Your task to perform on an android device: toggle location history Image 0: 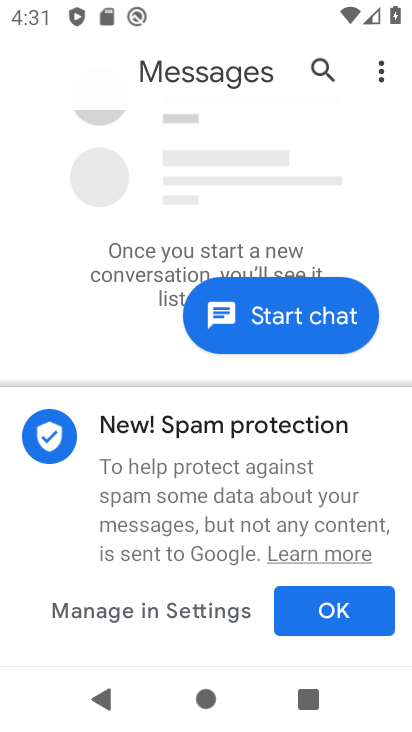
Step 0: press home button
Your task to perform on an android device: toggle location history Image 1: 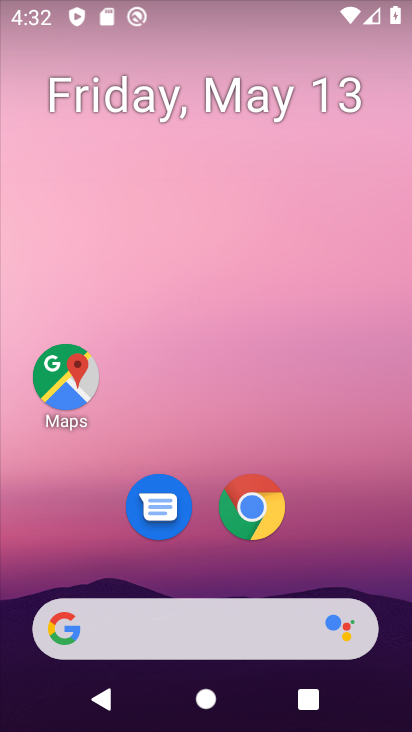
Step 1: drag from (328, 567) to (220, 89)
Your task to perform on an android device: toggle location history Image 2: 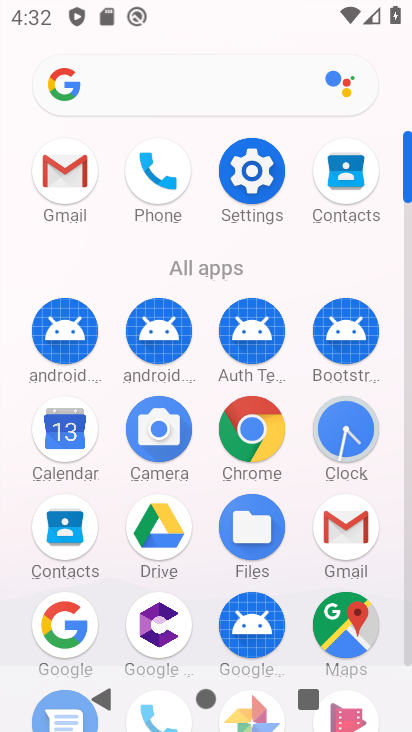
Step 2: click (245, 161)
Your task to perform on an android device: toggle location history Image 3: 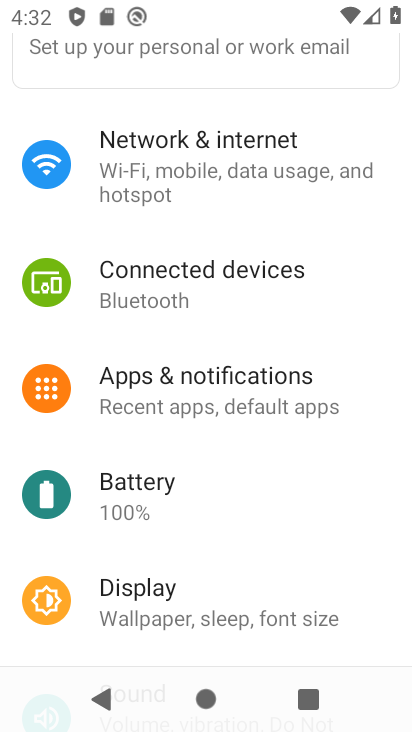
Step 3: drag from (236, 542) to (220, 122)
Your task to perform on an android device: toggle location history Image 4: 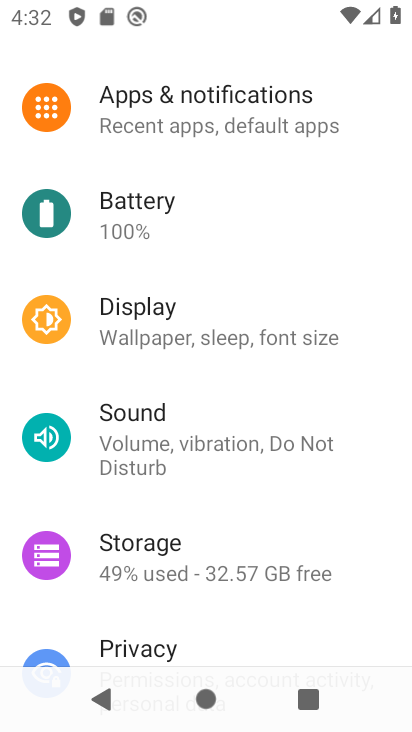
Step 4: drag from (266, 559) to (234, 220)
Your task to perform on an android device: toggle location history Image 5: 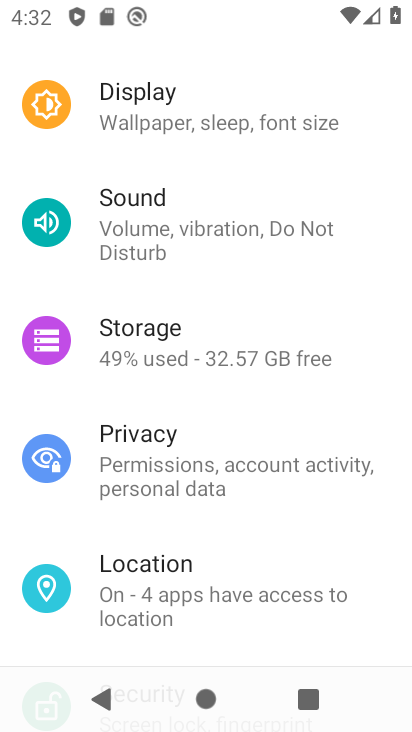
Step 5: drag from (235, 510) to (239, 322)
Your task to perform on an android device: toggle location history Image 6: 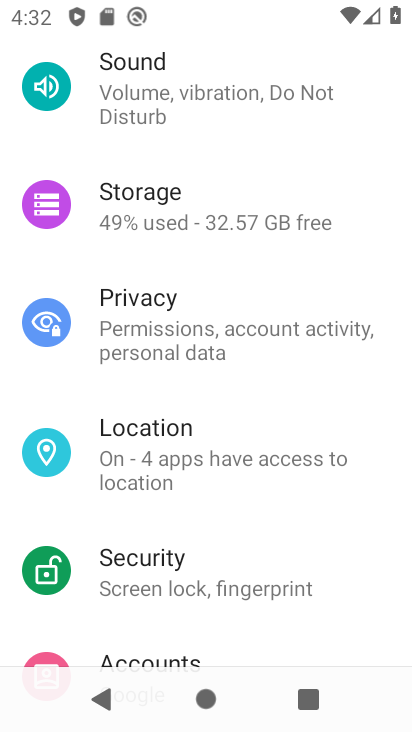
Step 6: click (232, 435)
Your task to perform on an android device: toggle location history Image 7: 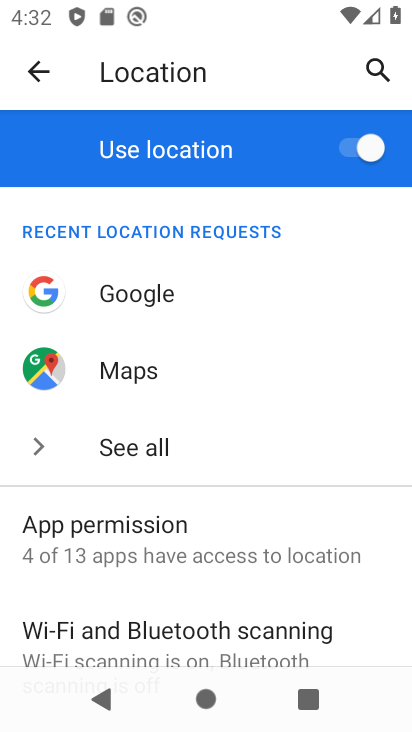
Step 7: drag from (266, 532) to (266, 135)
Your task to perform on an android device: toggle location history Image 8: 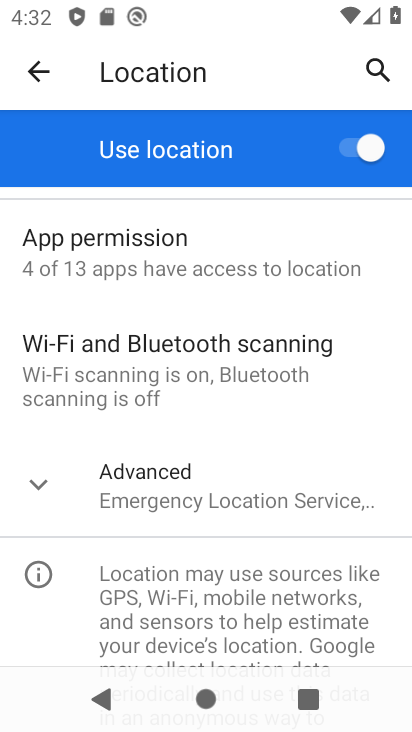
Step 8: click (234, 488)
Your task to perform on an android device: toggle location history Image 9: 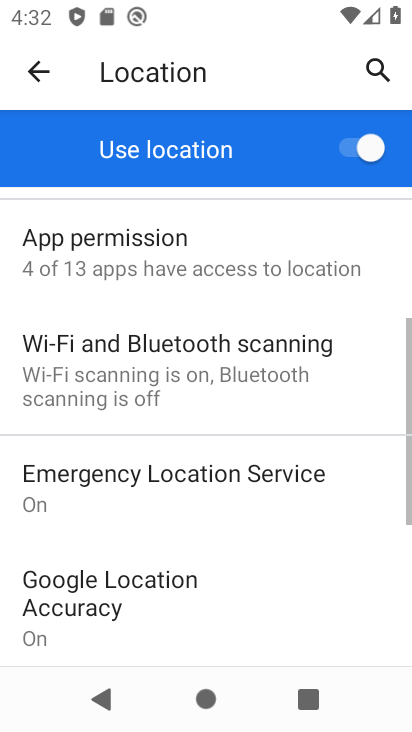
Step 9: drag from (270, 585) to (264, 282)
Your task to perform on an android device: toggle location history Image 10: 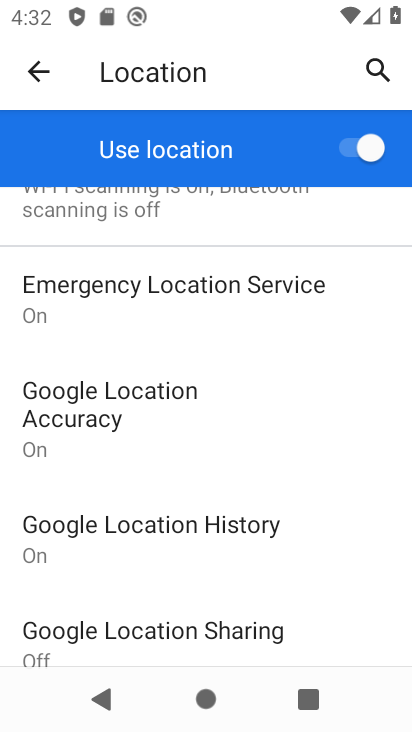
Step 10: click (227, 537)
Your task to perform on an android device: toggle location history Image 11: 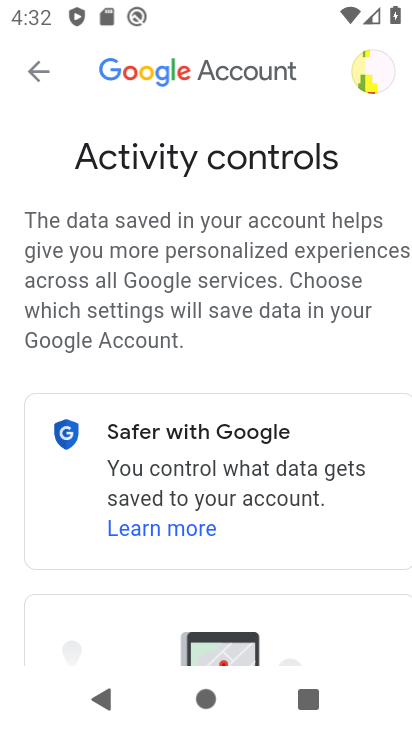
Step 11: drag from (260, 522) to (249, 108)
Your task to perform on an android device: toggle location history Image 12: 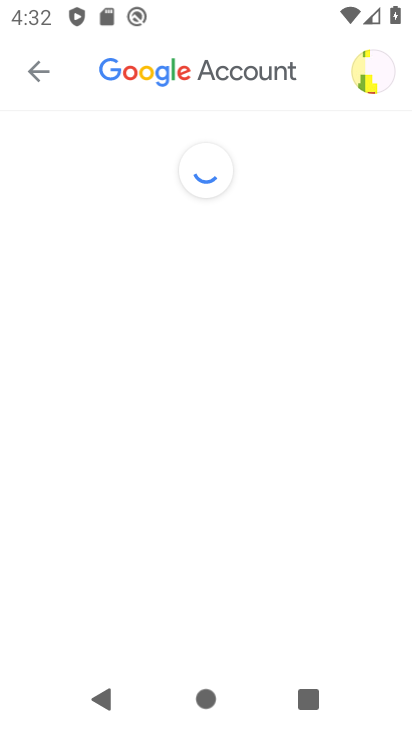
Step 12: drag from (213, 486) to (225, 138)
Your task to perform on an android device: toggle location history Image 13: 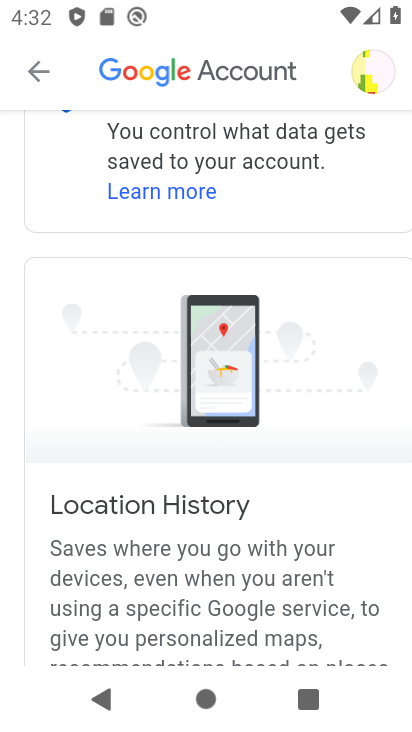
Step 13: drag from (159, 521) to (204, 173)
Your task to perform on an android device: toggle location history Image 14: 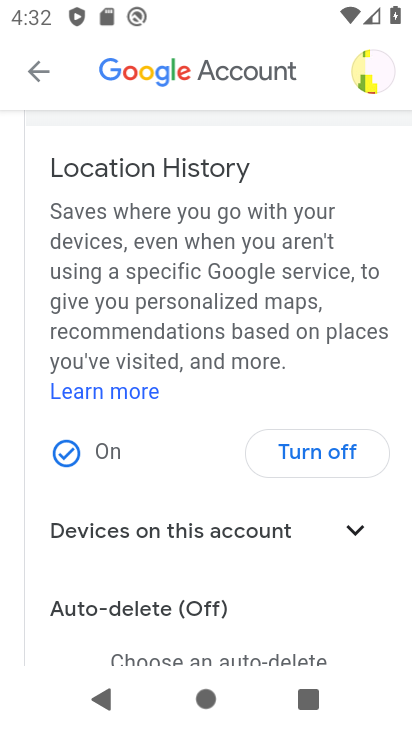
Step 14: click (325, 450)
Your task to perform on an android device: toggle location history Image 15: 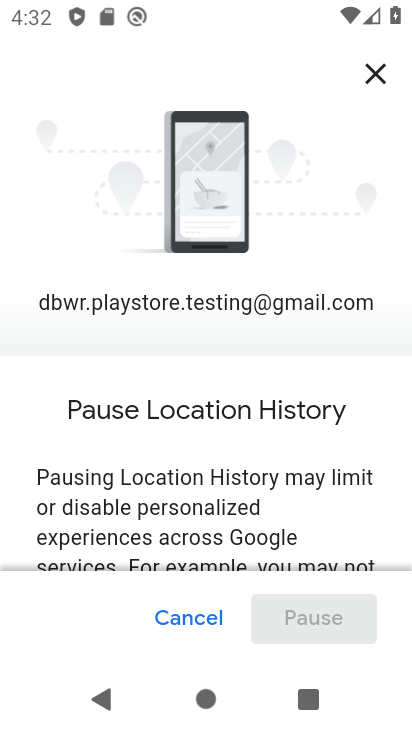
Step 15: drag from (292, 488) to (279, 64)
Your task to perform on an android device: toggle location history Image 16: 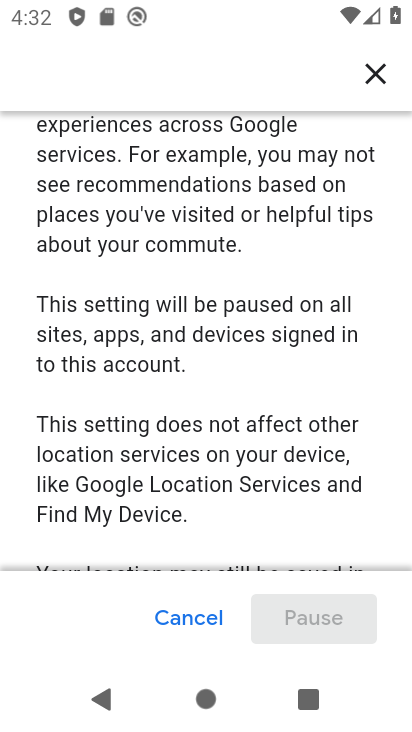
Step 16: drag from (224, 513) to (210, 73)
Your task to perform on an android device: toggle location history Image 17: 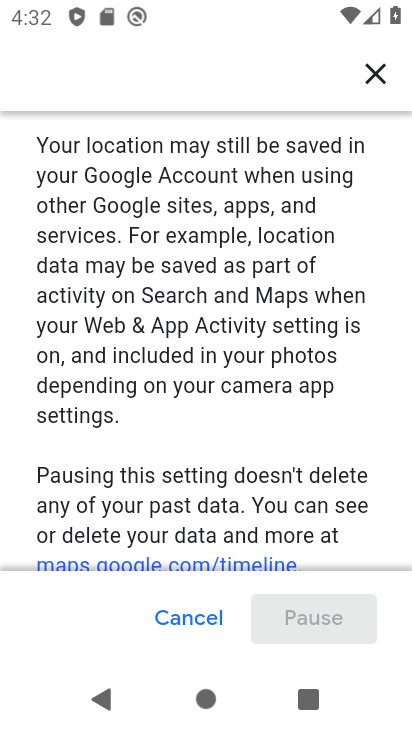
Step 17: drag from (276, 531) to (260, 139)
Your task to perform on an android device: toggle location history Image 18: 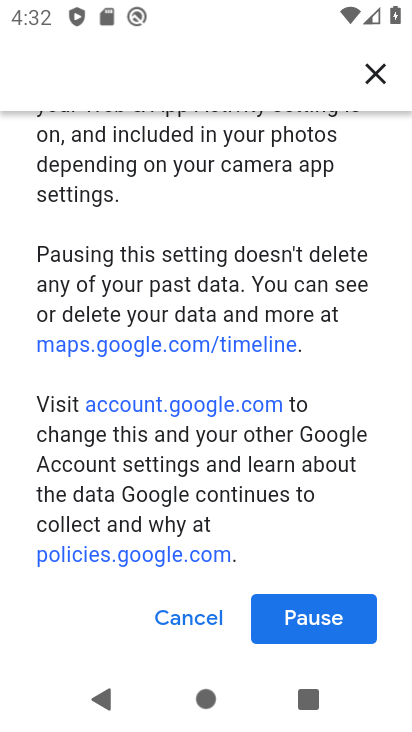
Step 18: click (295, 622)
Your task to perform on an android device: toggle location history Image 19: 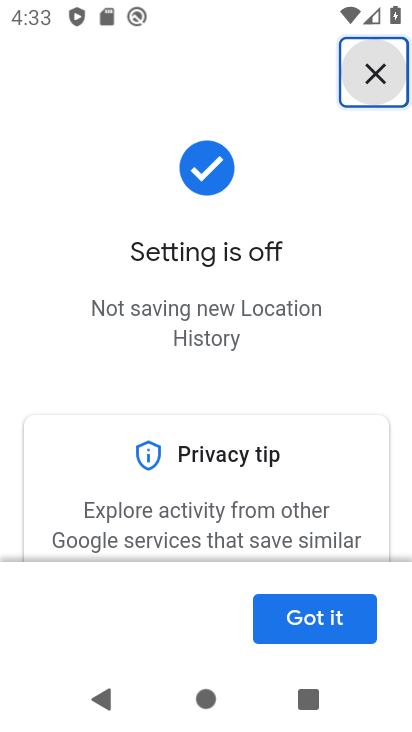
Step 19: click (338, 608)
Your task to perform on an android device: toggle location history Image 20: 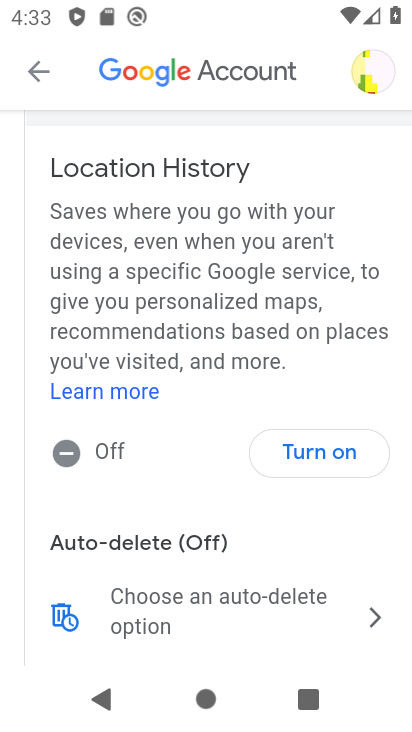
Step 20: task complete